Your task to perform on an android device: Open Chrome and go to settings Image 0: 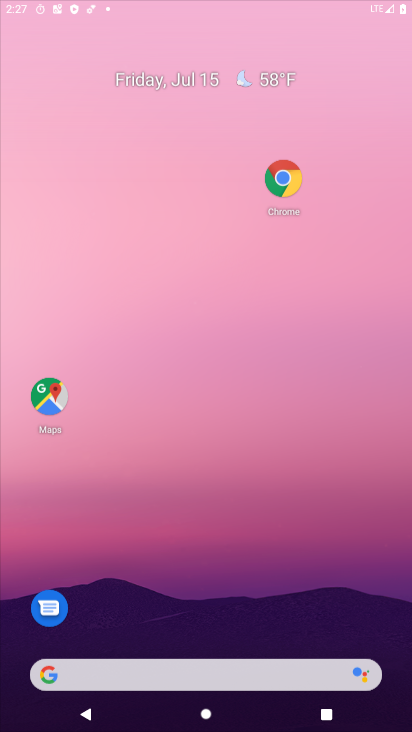
Step 0: press home button
Your task to perform on an android device: Open Chrome and go to settings Image 1: 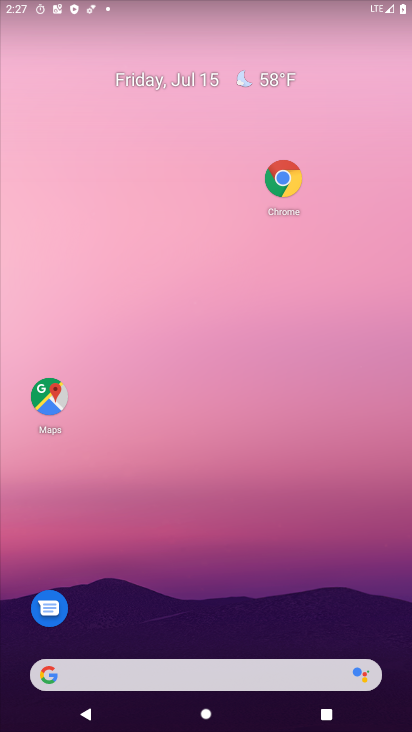
Step 1: drag from (267, 596) to (320, 79)
Your task to perform on an android device: Open Chrome and go to settings Image 2: 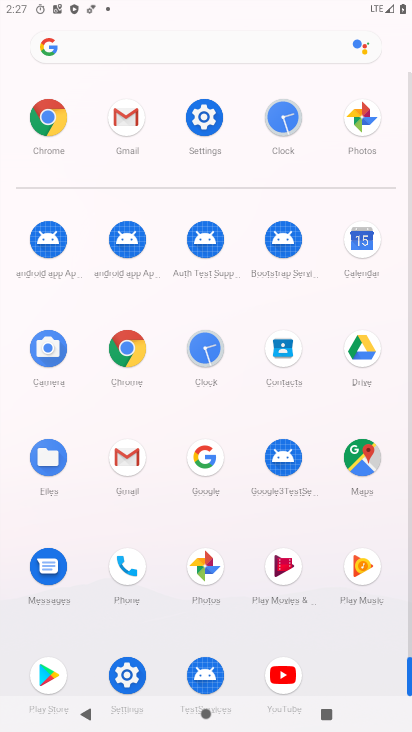
Step 2: click (132, 332)
Your task to perform on an android device: Open Chrome and go to settings Image 3: 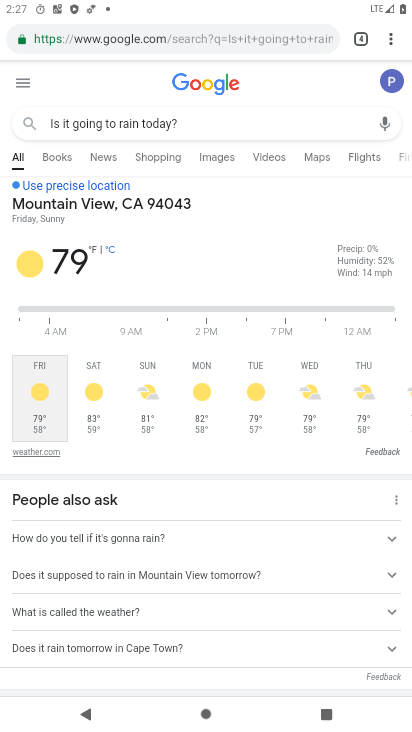
Step 3: task complete